Your task to perform on an android device: turn off notifications in google photos Image 0: 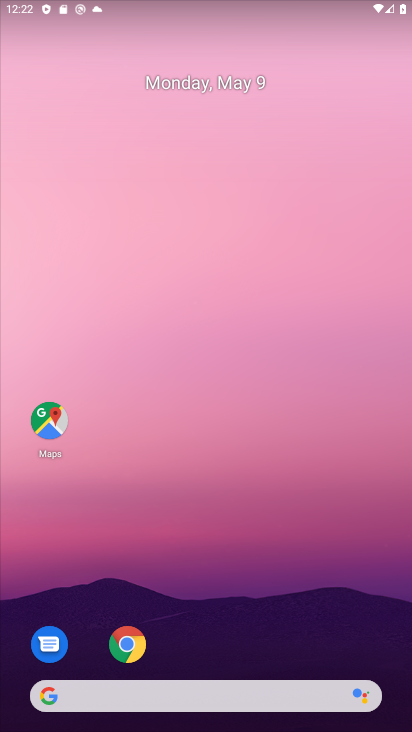
Step 0: drag from (297, 655) to (186, 109)
Your task to perform on an android device: turn off notifications in google photos Image 1: 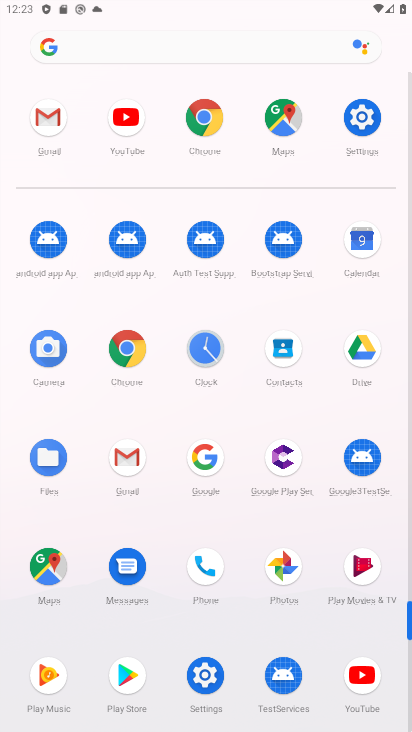
Step 1: click (281, 563)
Your task to perform on an android device: turn off notifications in google photos Image 2: 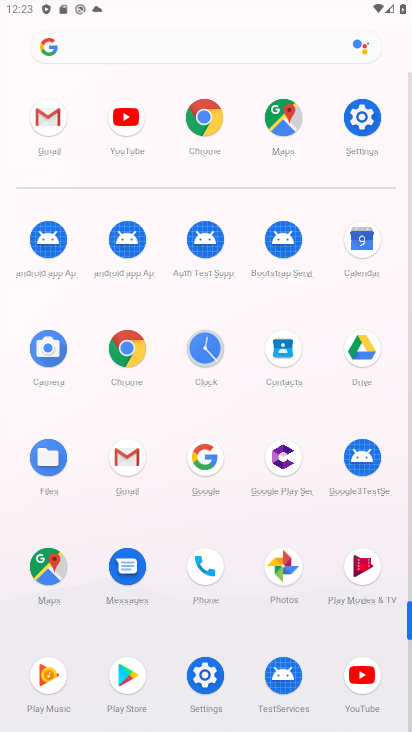
Step 2: click (280, 562)
Your task to perform on an android device: turn off notifications in google photos Image 3: 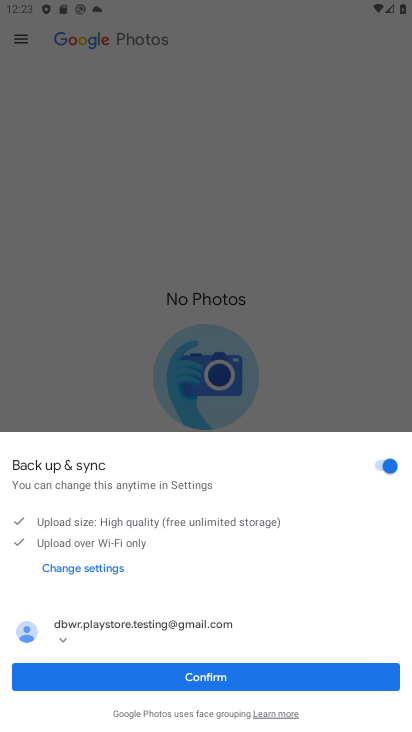
Step 3: click (208, 672)
Your task to perform on an android device: turn off notifications in google photos Image 4: 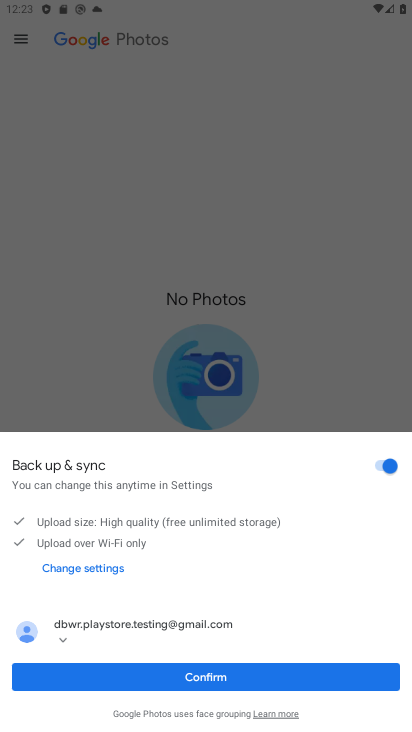
Step 4: click (208, 672)
Your task to perform on an android device: turn off notifications in google photos Image 5: 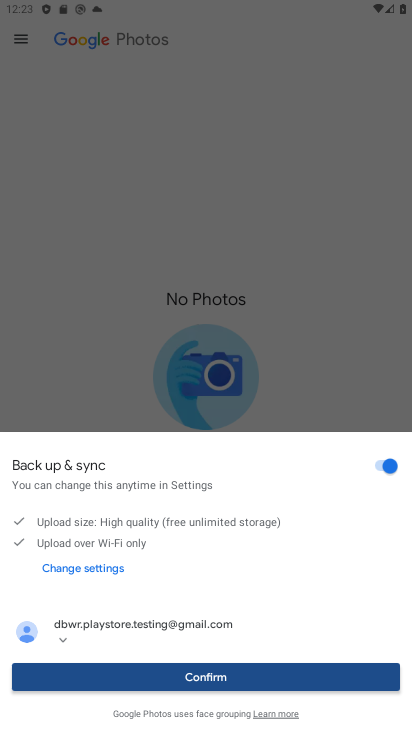
Step 5: click (208, 672)
Your task to perform on an android device: turn off notifications in google photos Image 6: 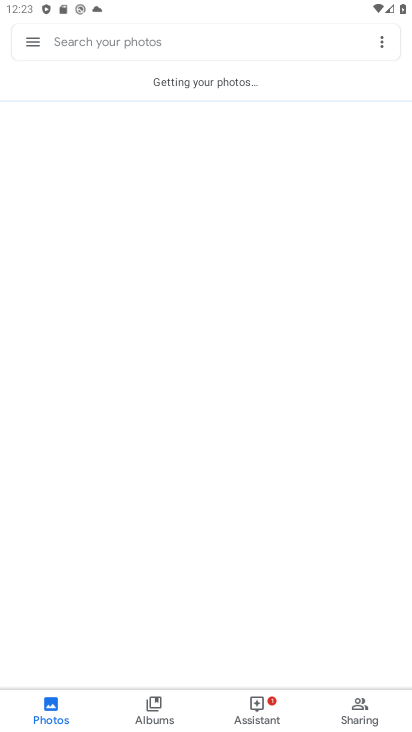
Step 6: click (18, 705)
Your task to perform on an android device: turn off notifications in google photos Image 7: 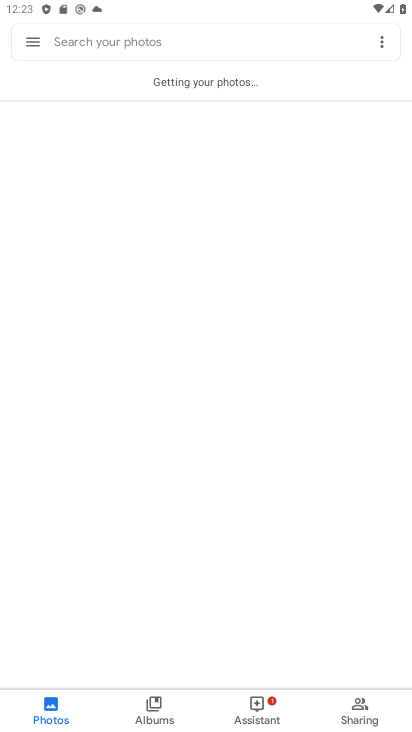
Step 7: click (28, 38)
Your task to perform on an android device: turn off notifications in google photos Image 8: 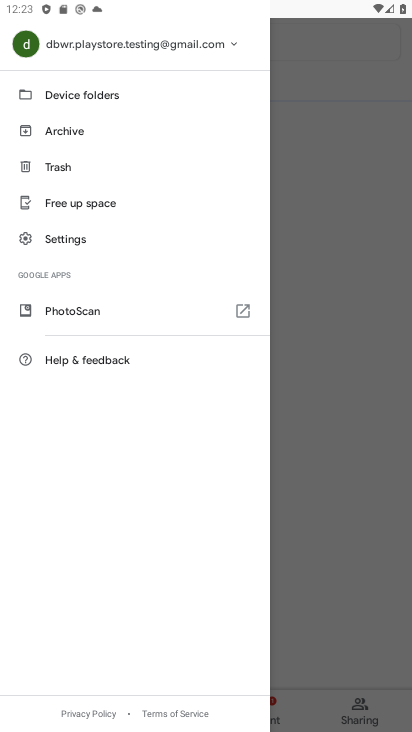
Step 8: click (61, 236)
Your task to perform on an android device: turn off notifications in google photos Image 9: 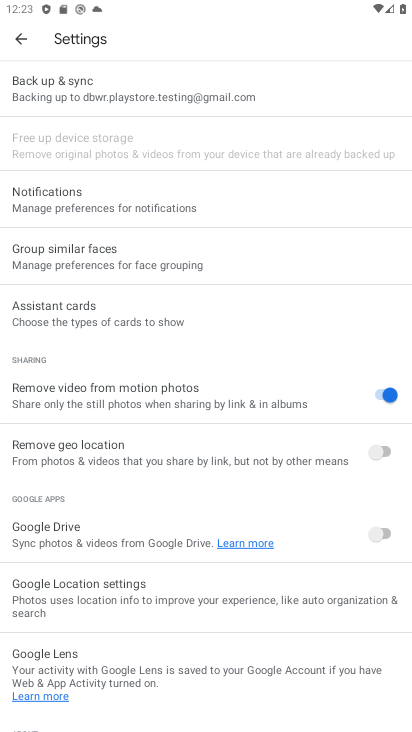
Step 9: click (57, 196)
Your task to perform on an android device: turn off notifications in google photos Image 10: 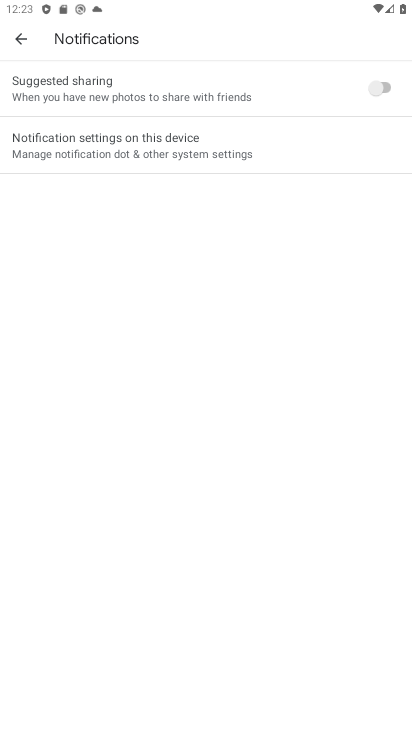
Step 10: click (377, 91)
Your task to perform on an android device: turn off notifications in google photos Image 11: 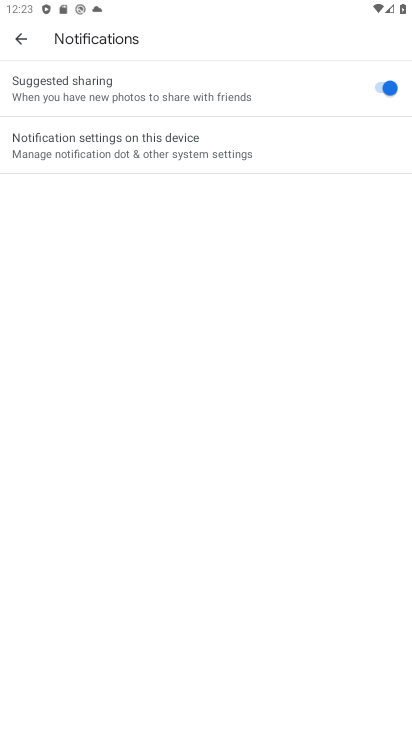
Step 11: click (129, 145)
Your task to perform on an android device: turn off notifications in google photos Image 12: 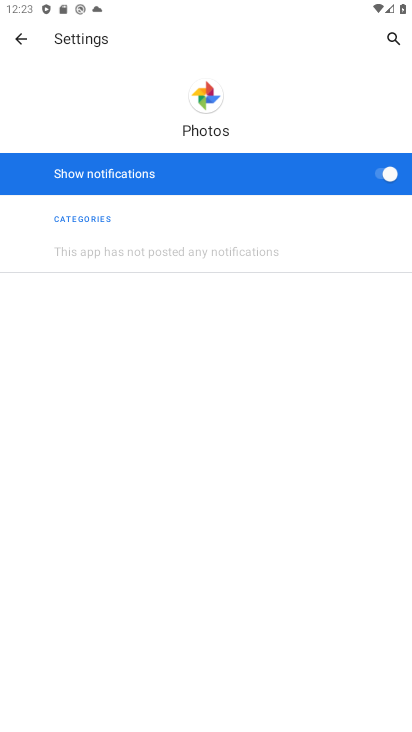
Step 12: click (391, 171)
Your task to perform on an android device: turn off notifications in google photos Image 13: 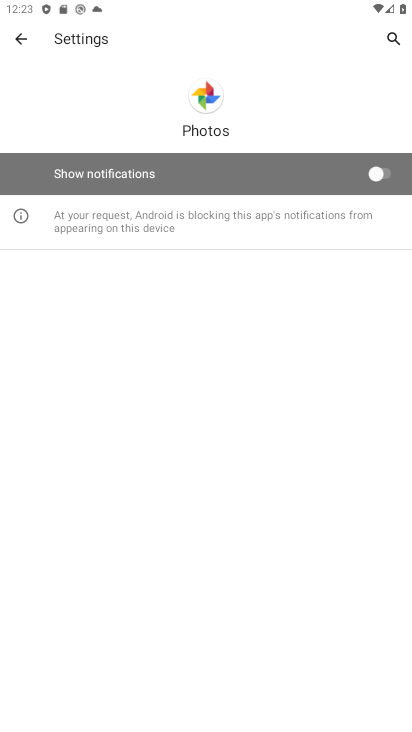
Step 13: task complete